Your task to perform on an android device: change the clock style Image 0: 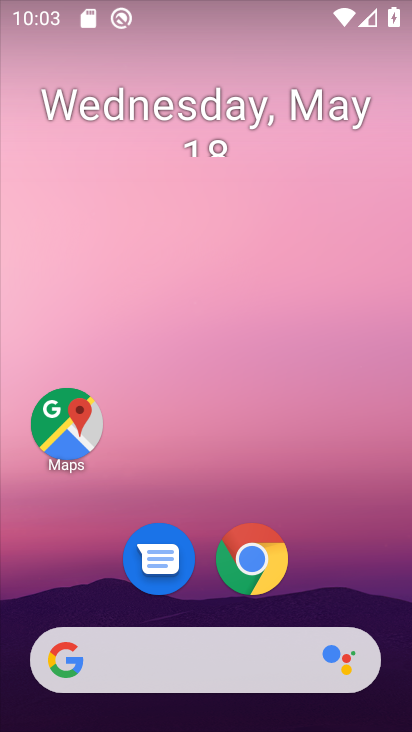
Step 0: drag from (212, 590) to (243, 85)
Your task to perform on an android device: change the clock style Image 1: 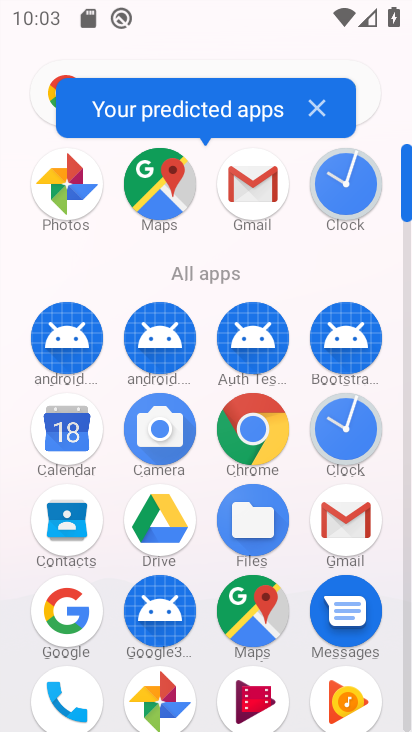
Step 1: click (356, 433)
Your task to perform on an android device: change the clock style Image 2: 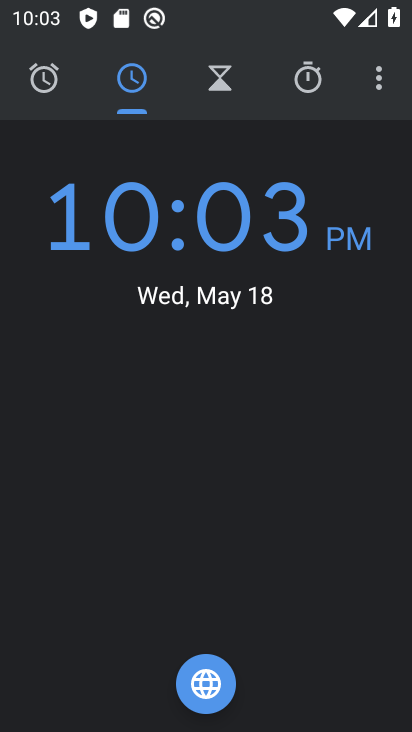
Step 2: click (378, 82)
Your task to perform on an android device: change the clock style Image 3: 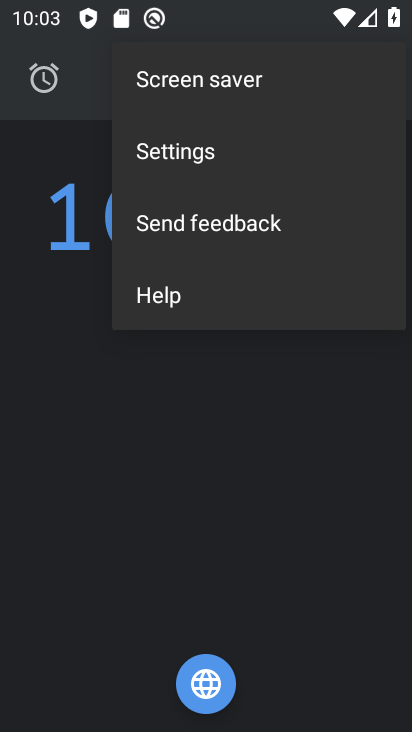
Step 3: click (214, 162)
Your task to perform on an android device: change the clock style Image 4: 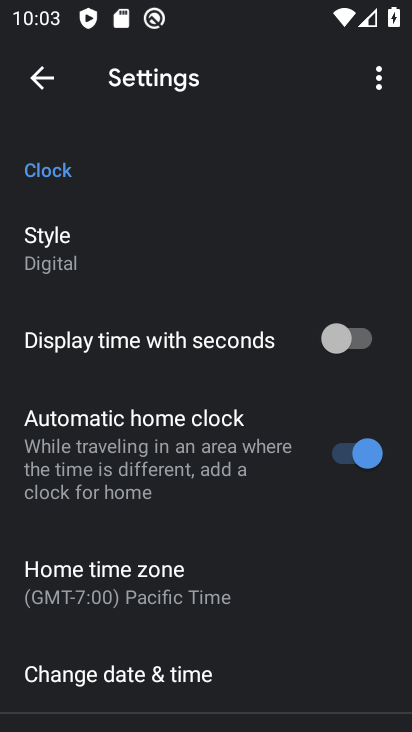
Step 4: click (111, 251)
Your task to perform on an android device: change the clock style Image 5: 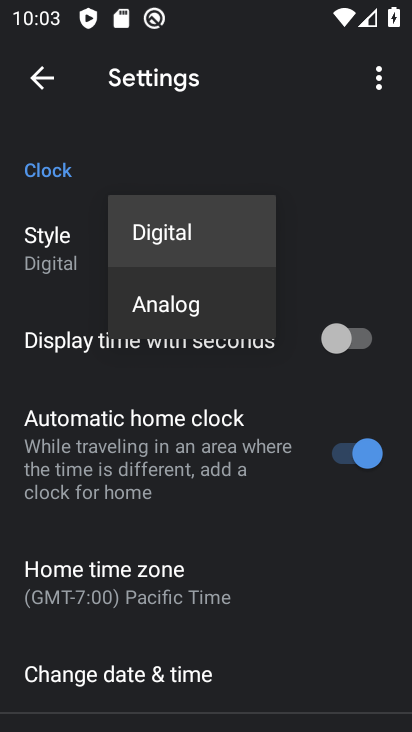
Step 5: click (170, 312)
Your task to perform on an android device: change the clock style Image 6: 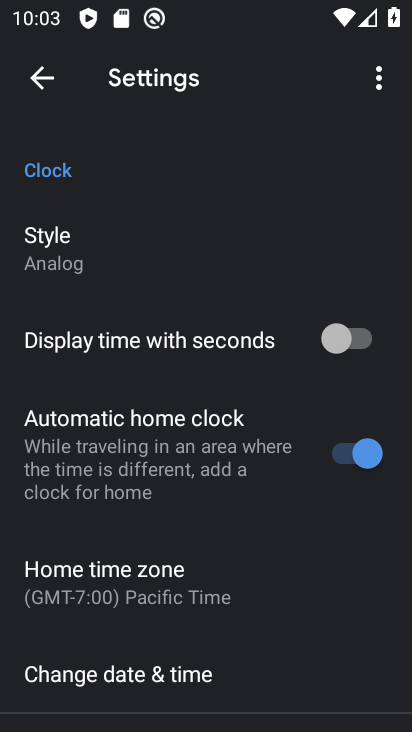
Step 6: task complete